Your task to perform on an android device: Do I have any events tomorrow? Image 0: 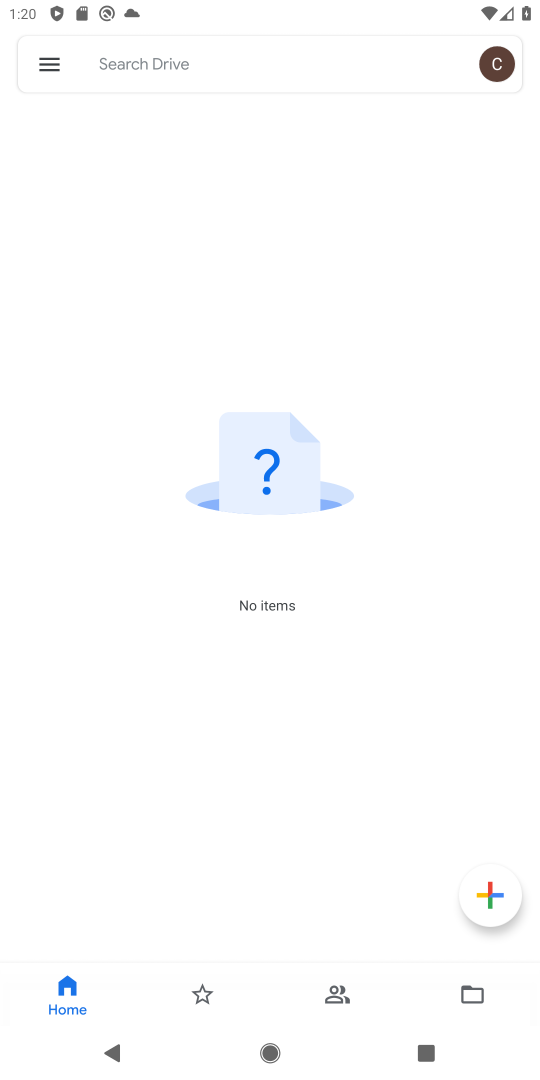
Step 0: press home button
Your task to perform on an android device: Do I have any events tomorrow? Image 1: 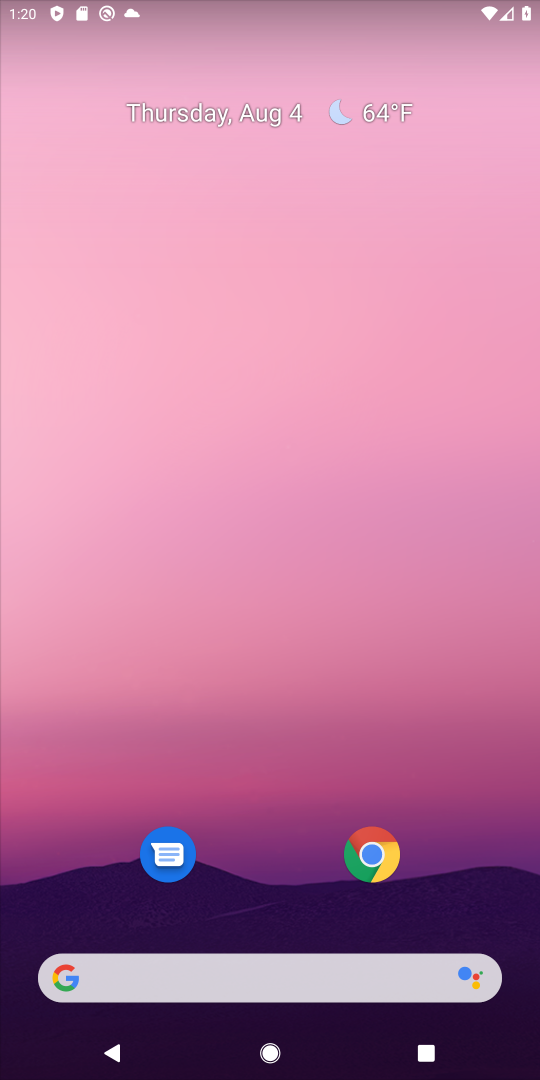
Step 1: drag from (269, 731) to (280, 405)
Your task to perform on an android device: Do I have any events tomorrow? Image 2: 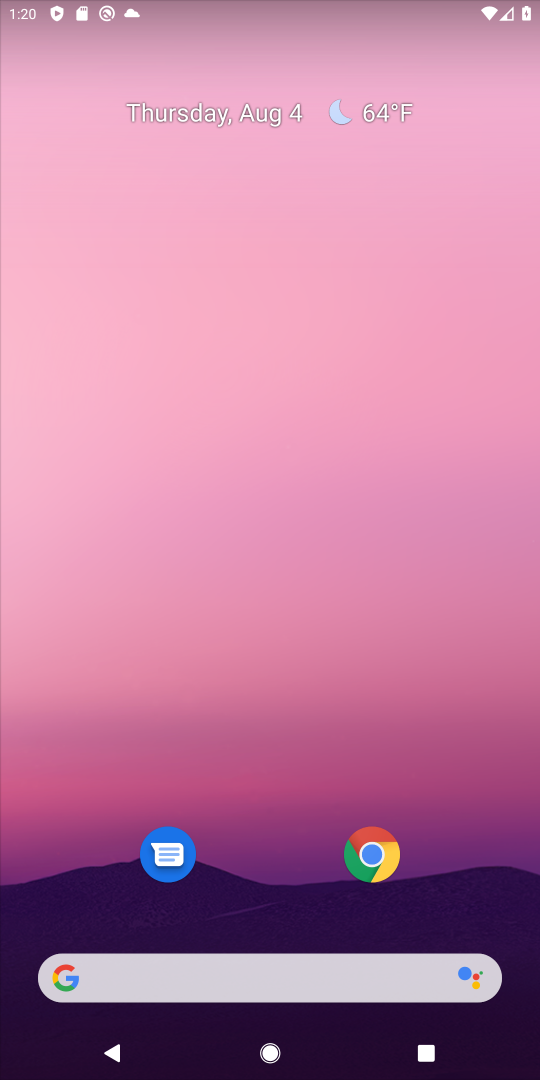
Step 2: drag from (253, 688) to (284, 270)
Your task to perform on an android device: Do I have any events tomorrow? Image 3: 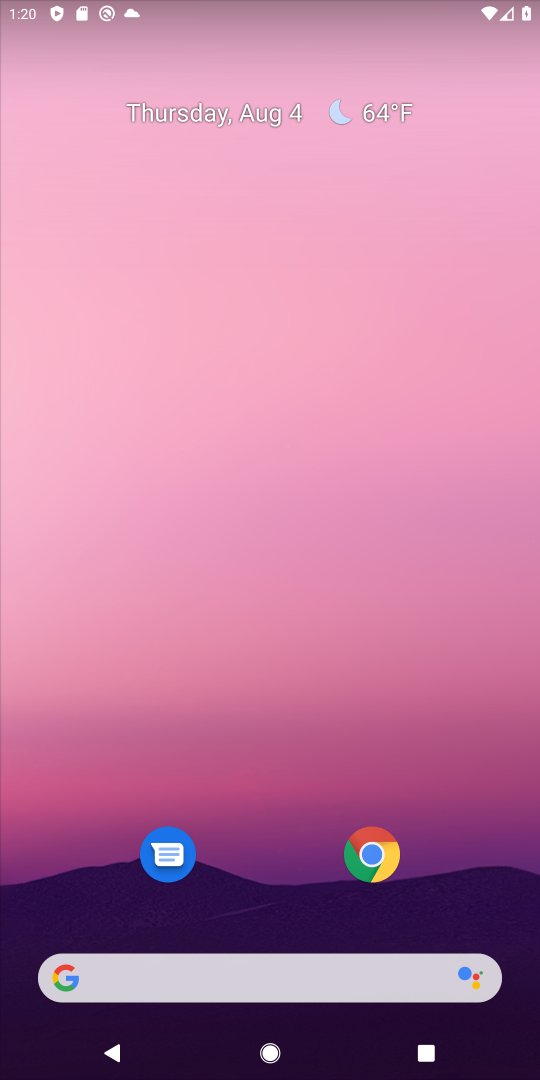
Step 3: drag from (230, 730) to (355, 176)
Your task to perform on an android device: Do I have any events tomorrow? Image 4: 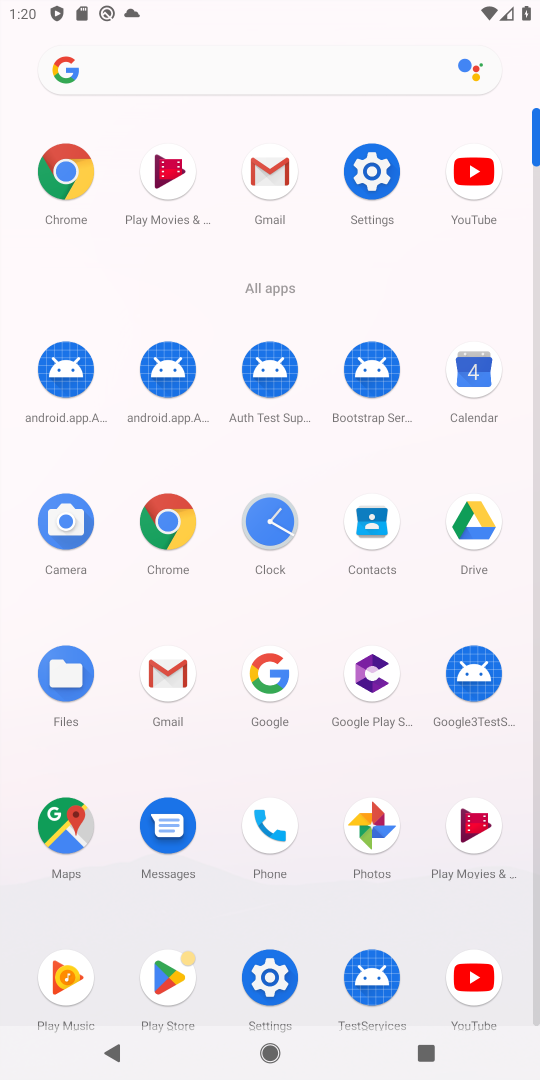
Step 4: click (490, 390)
Your task to perform on an android device: Do I have any events tomorrow? Image 5: 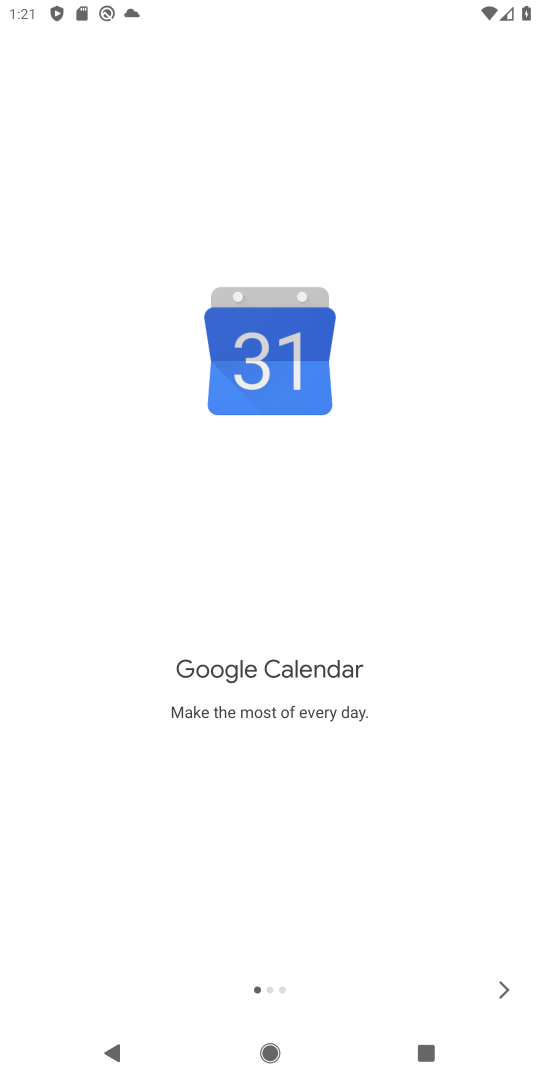
Step 5: click (500, 981)
Your task to perform on an android device: Do I have any events tomorrow? Image 6: 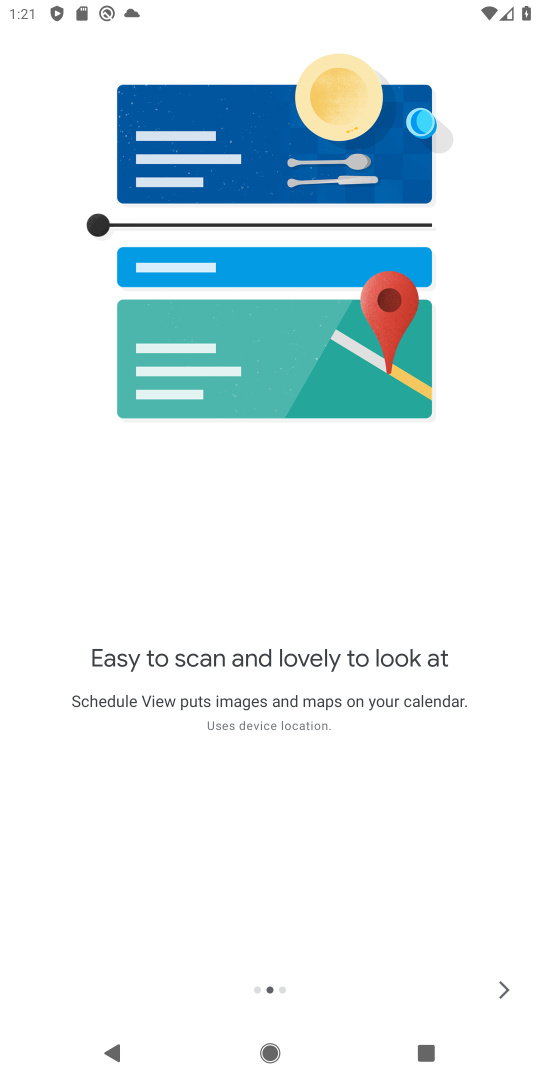
Step 6: click (500, 981)
Your task to perform on an android device: Do I have any events tomorrow? Image 7: 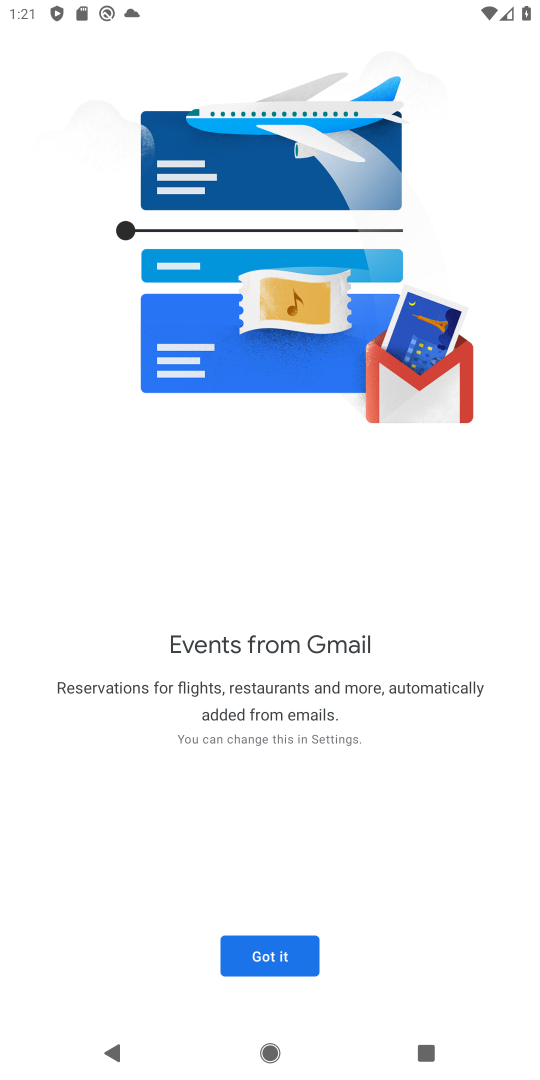
Step 7: click (308, 967)
Your task to perform on an android device: Do I have any events tomorrow? Image 8: 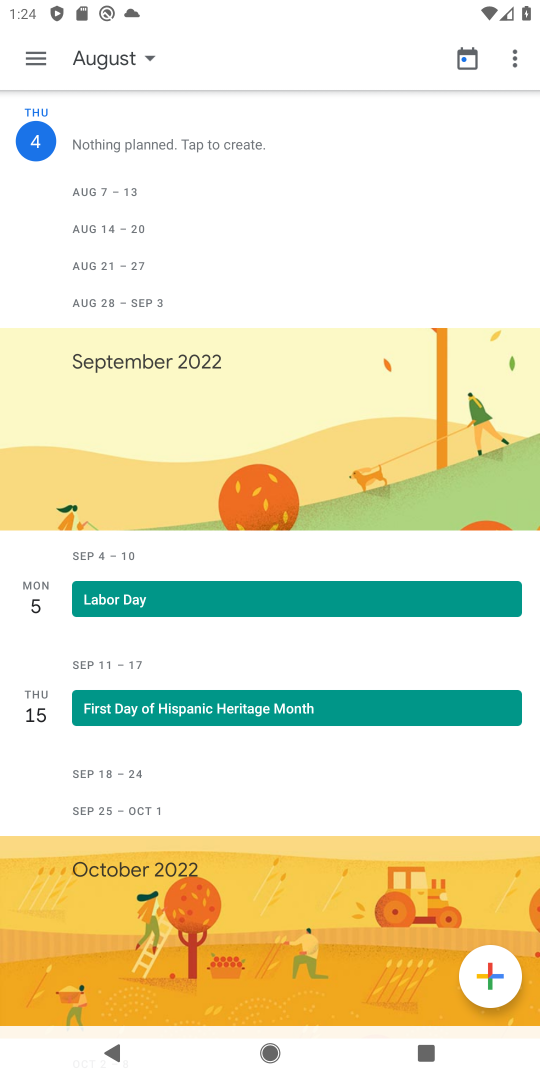
Step 8: task complete